Your task to perform on an android device: turn on wifi Image 0: 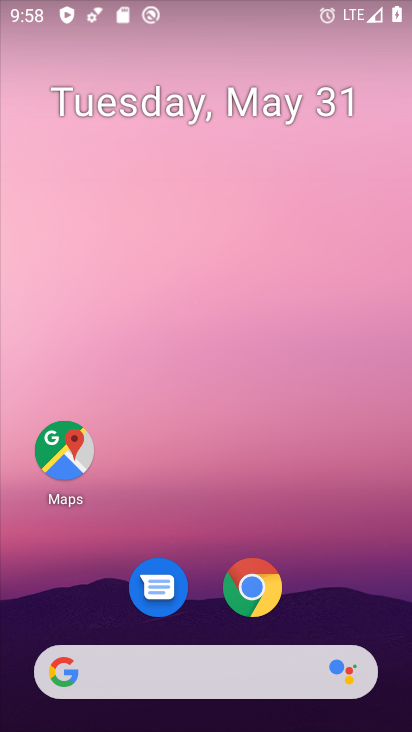
Step 0: drag from (353, 606) to (383, 260)
Your task to perform on an android device: turn on wifi Image 1: 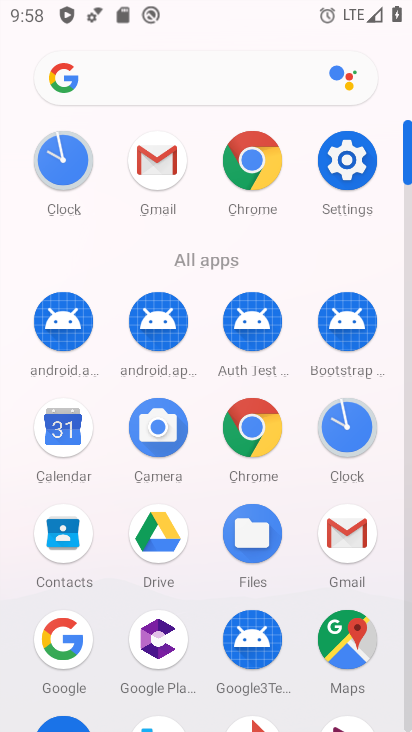
Step 1: click (353, 182)
Your task to perform on an android device: turn on wifi Image 2: 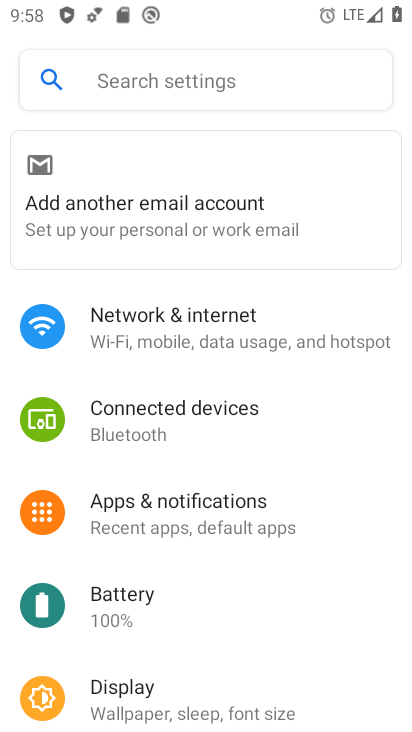
Step 2: drag from (364, 497) to (357, 407)
Your task to perform on an android device: turn on wifi Image 3: 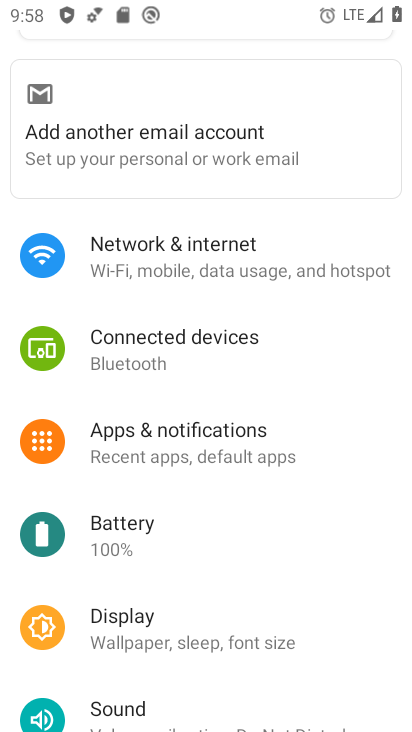
Step 3: drag from (364, 542) to (363, 421)
Your task to perform on an android device: turn on wifi Image 4: 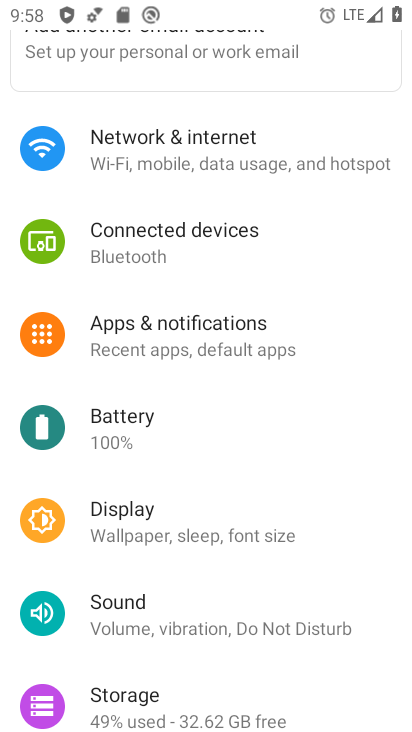
Step 4: drag from (362, 554) to (367, 452)
Your task to perform on an android device: turn on wifi Image 5: 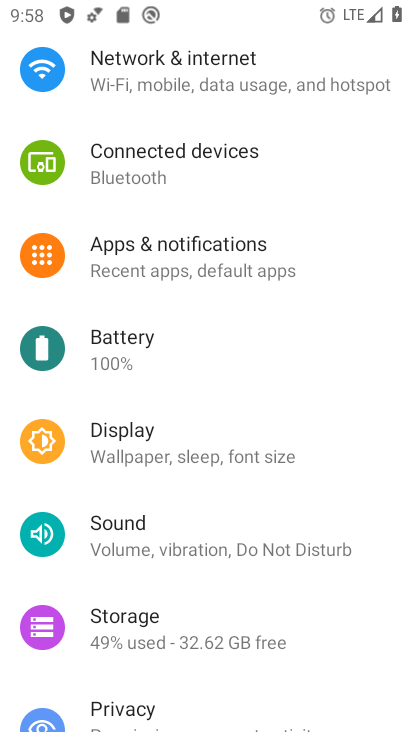
Step 5: drag from (372, 584) to (385, 463)
Your task to perform on an android device: turn on wifi Image 6: 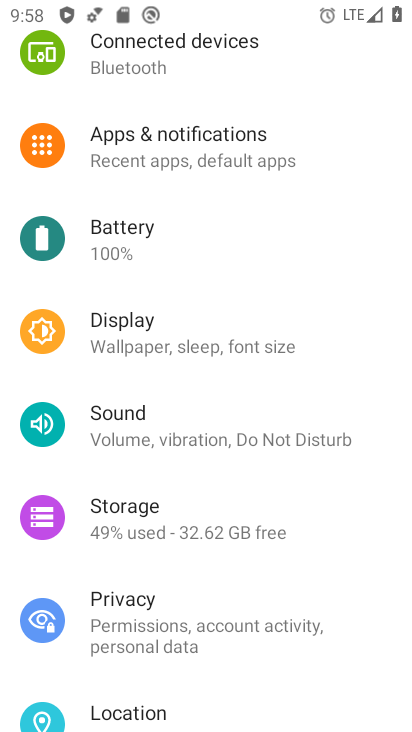
Step 6: drag from (367, 599) to (348, 475)
Your task to perform on an android device: turn on wifi Image 7: 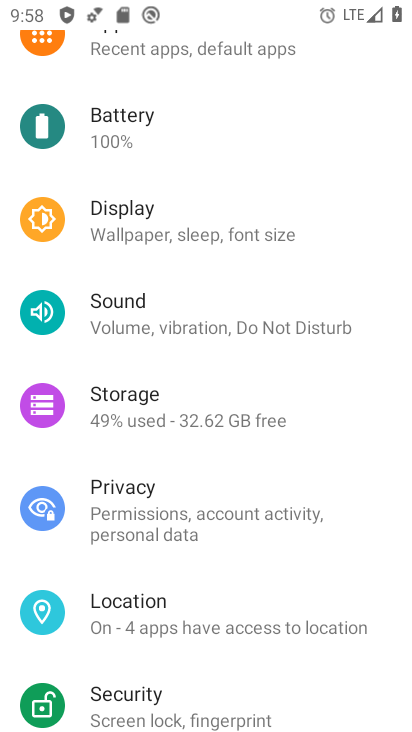
Step 7: drag from (345, 613) to (345, 520)
Your task to perform on an android device: turn on wifi Image 8: 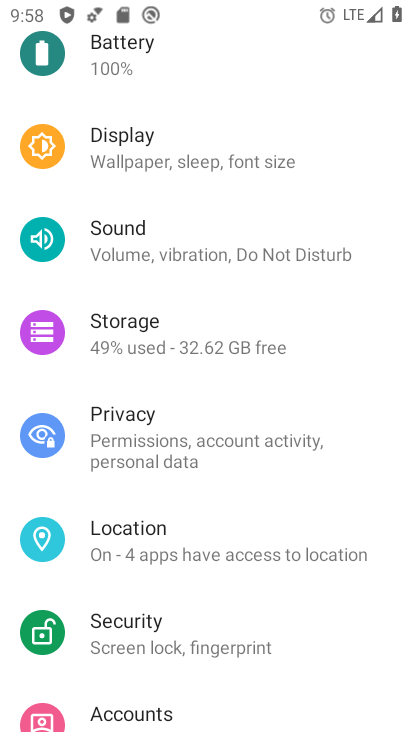
Step 8: drag from (357, 620) to (375, 470)
Your task to perform on an android device: turn on wifi Image 9: 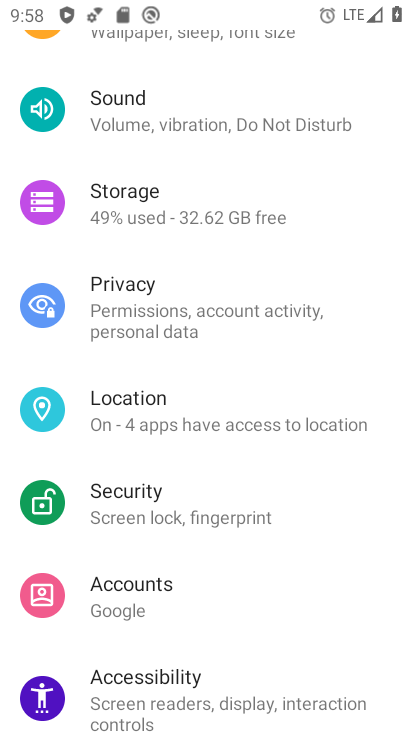
Step 9: drag from (350, 651) to (354, 488)
Your task to perform on an android device: turn on wifi Image 10: 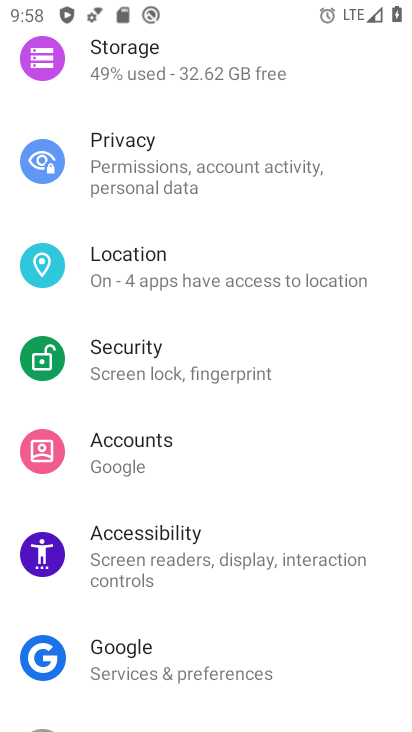
Step 10: drag from (359, 393) to (345, 520)
Your task to perform on an android device: turn on wifi Image 11: 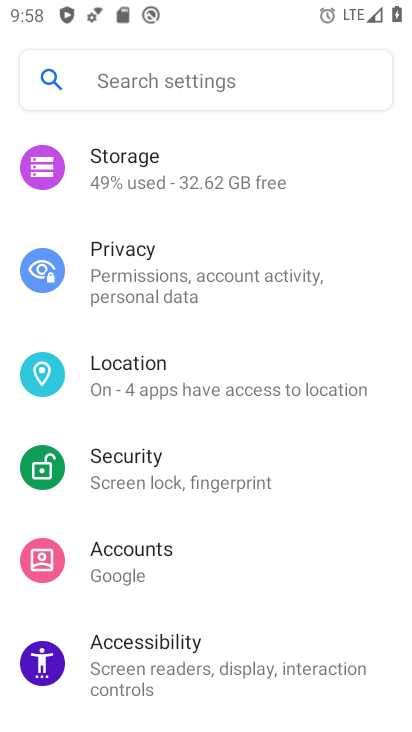
Step 11: drag from (383, 342) to (370, 487)
Your task to perform on an android device: turn on wifi Image 12: 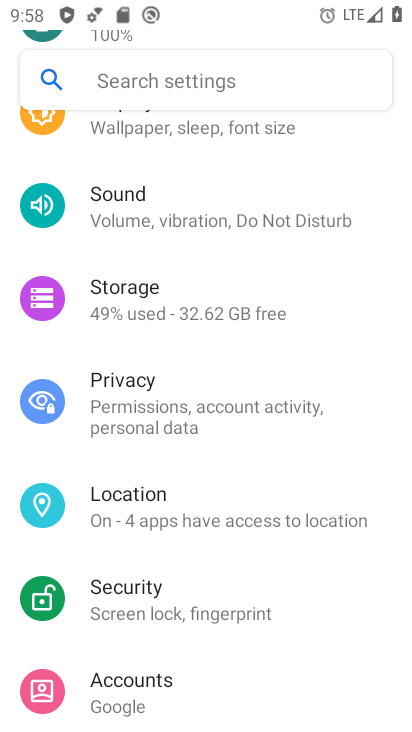
Step 12: drag from (370, 314) to (373, 466)
Your task to perform on an android device: turn on wifi Image 13: 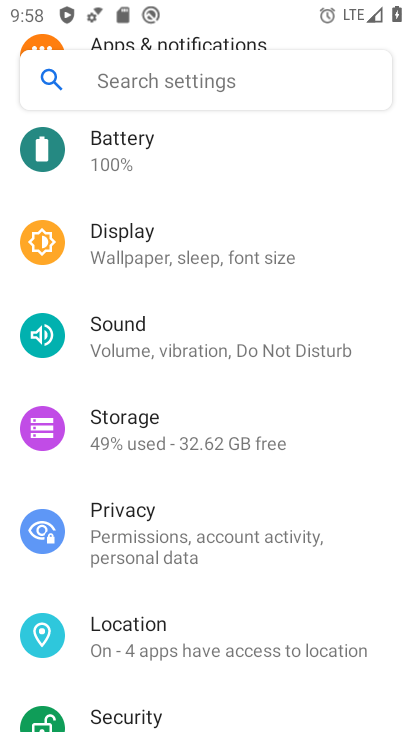
Step 13: drag from (382, 268) to (374, 379)
Your task to perform on an android device: turn on wifi Image 14: 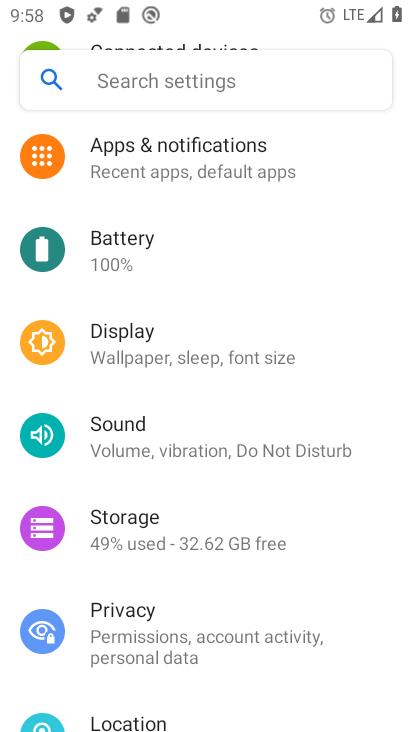
Step 14: drag from (366, 250) to (377, 356)
Your task to perform on an android device: turn on wifi Image 15: 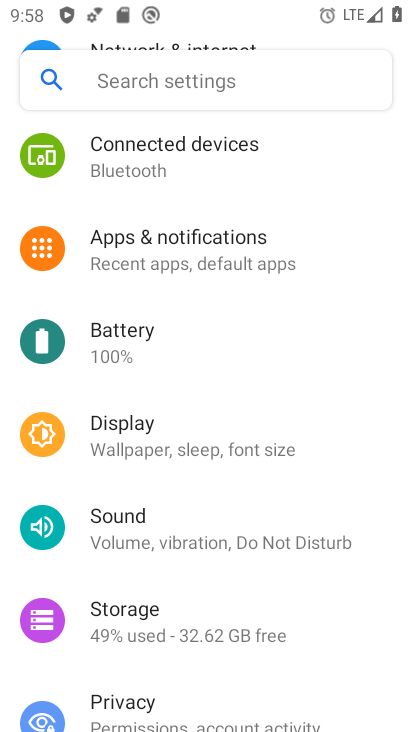
Step 15: drag from (367, 240) to (367, 351)
Your task to perform on an android device: turn on wifi Image 16: 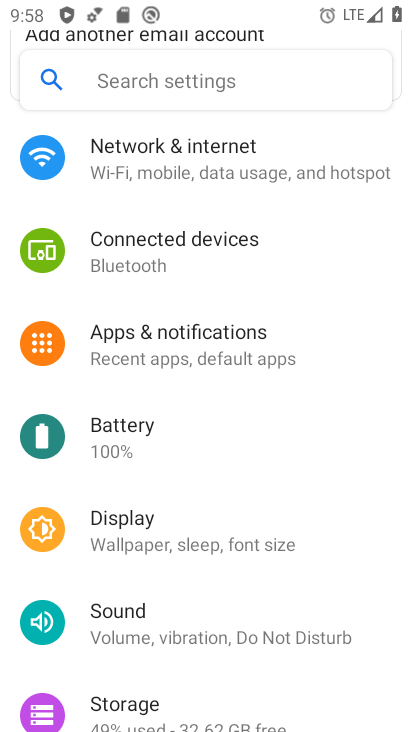
Step 16: drag from (362, 253) to (350, 385)
Your task to perform on an android device: turn on wifi Image 17: 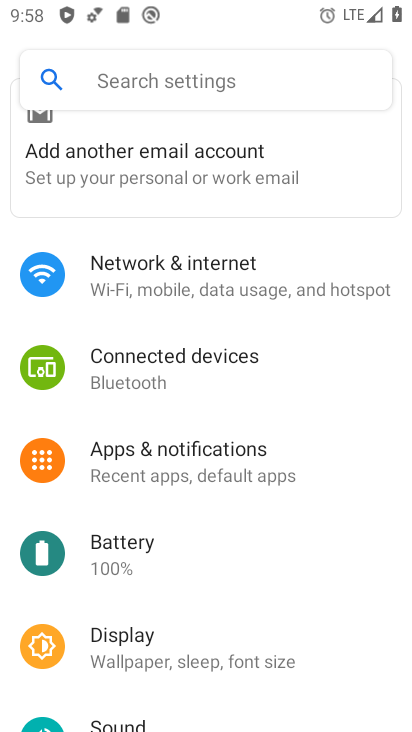
Step 17: click (351, 288)
Your task to perform on an android device: turn on wifi Image 18: 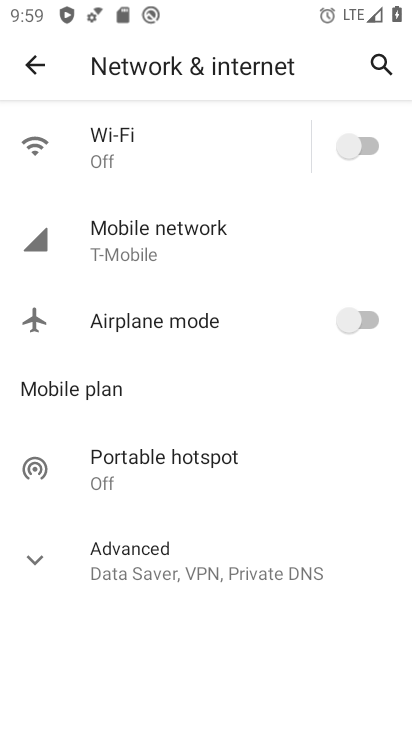
Step 18: click (366, 158)
Your task to perform on an android device: turn on wifi Image 19: 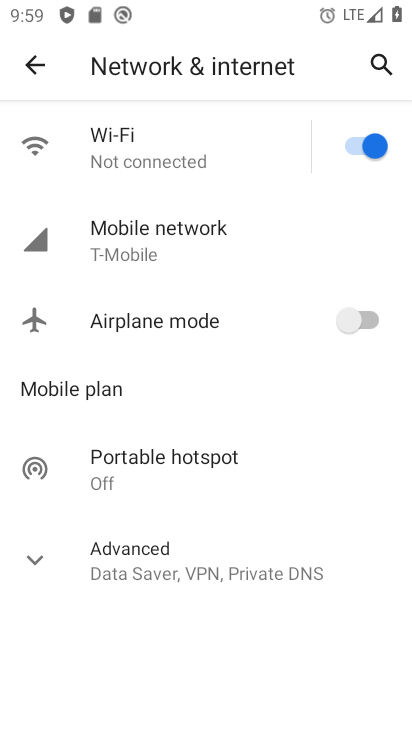
Step 19: task complete